Your task to perform on an android device: Show the shopping cart on newegg. Image 0: 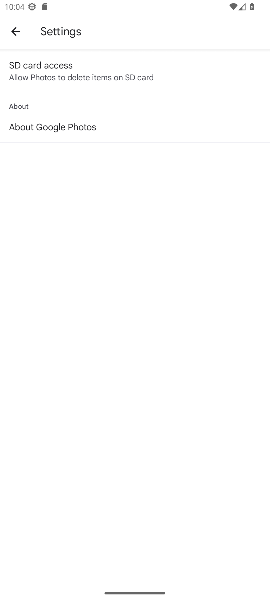
Step 0: press home button
Your task to perform on an android device: Show the shopping cart on newegg. Image 1: 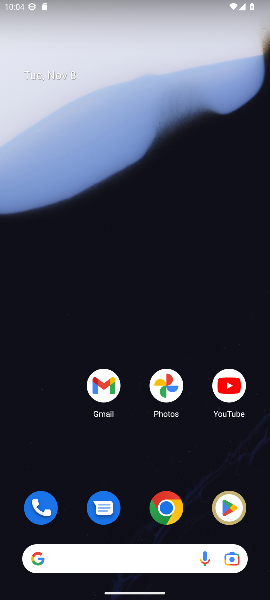
Step 1: click (164, 508)
Your task to perform on an android device: Show the shopping cart on newegg. Image 2: 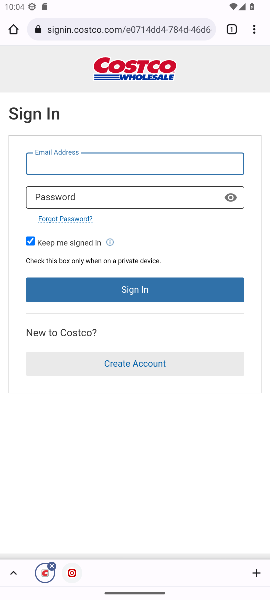
Step 2: click (128, 31)
Your task to perform on an android device: Show the shopping cart on newegg. Image 3: 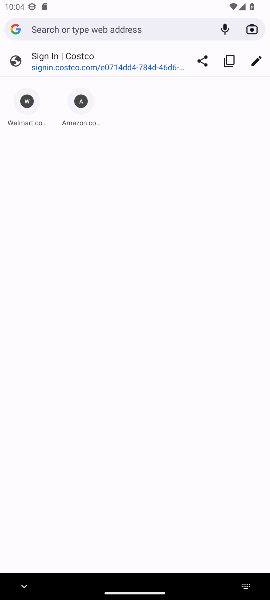
Step 3: type "newegg"
Your task to perform on an android device: Show the shopping cart on newegg. Image 4: 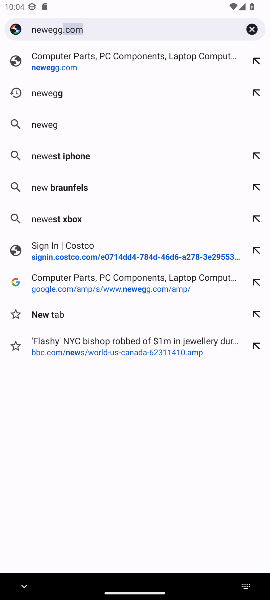
Step 4: type ""
Your task to perform on an android device: Show the shopping cart on newegg. Image 5: 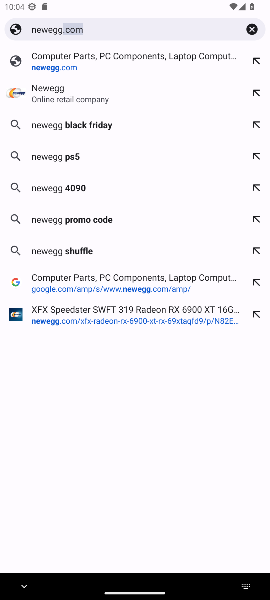
Step 5: click (29, 91)
Your task to perform on an android device: Show the shopping cart on newegg. Image 6: 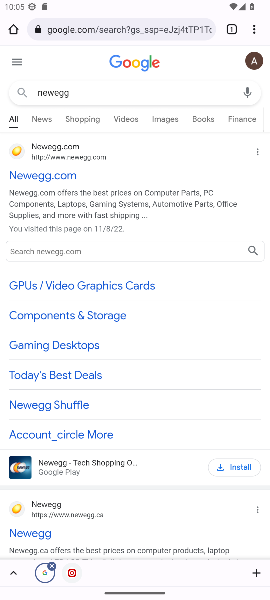
Step 6: click (23, 175)
Your task to perform on an android device: Show the shopping cart on newegg. Image 7: 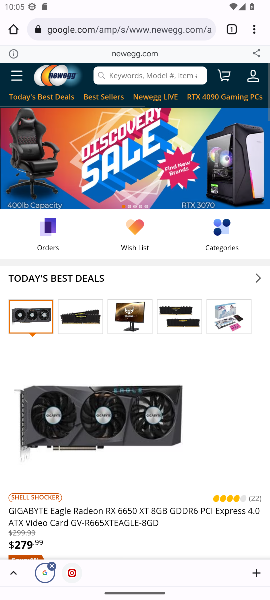
Step 7: click (124, 74)
Your task to perform on an android device: Show the shopping cart on newegg. Image 8: 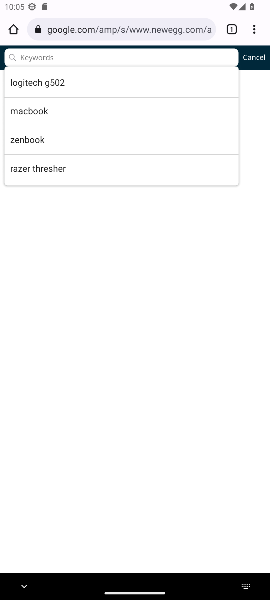
Step 8: click (58, 26)
Your task to perform on an android device: Show the shopping cart on newegg. Image 9: 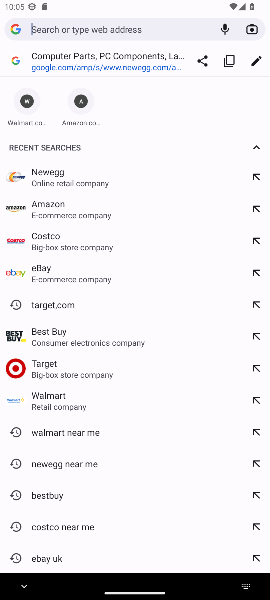
Step 9: type "newegg"
Your task to perform on an android device: Show the shopping cart on newegg. Image 10: 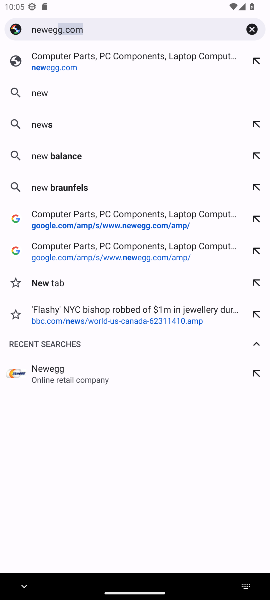
Step 10: type ""
Your task to perform on an android device: Show the shopping cart on newegg. Image 11: 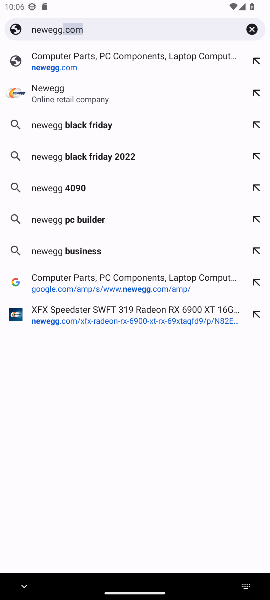
Step 11: click (50, 84)
Your task to perform on an android device: Show the shopping cart on newegg. Image 12: 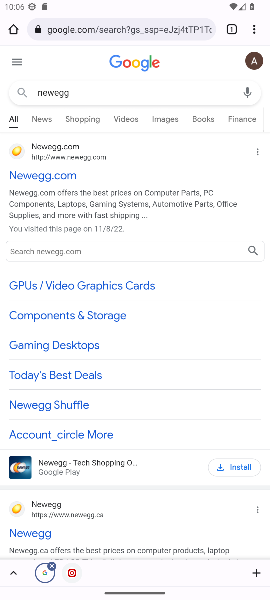
Step 12: click (24, 174)
Your task to perform on an android device: Show the shopping cart on newegg. Image 13: 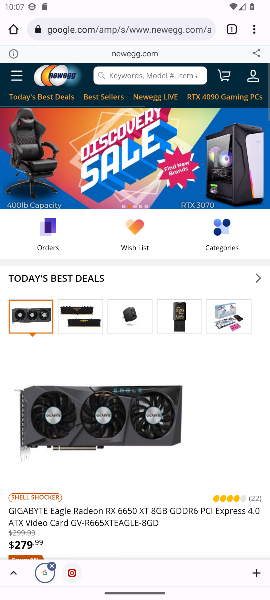
Step 13: click (116, 390)
Your task to perform on an android device: Show the shopping cart on newegg. Image 14: 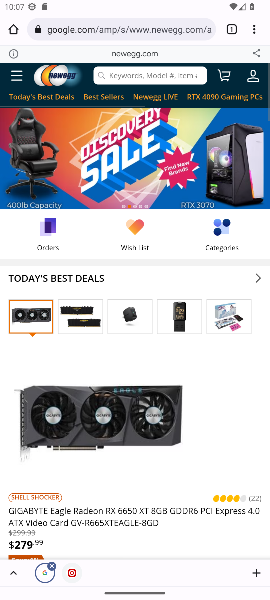
Step 14: drag from (127, 309) to (171, 60)
Your task to perform on an android device: Show the shopping cart on newegg. Image 15: 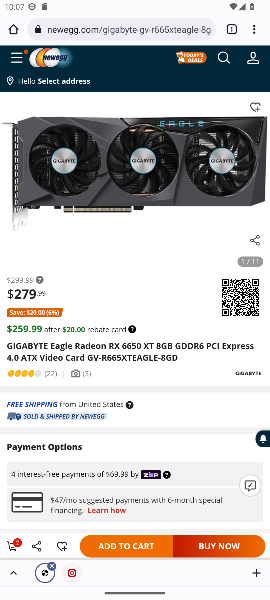
Step 15: click (106, 543)
Your task to perform on an android device: Show the shopping cart on newegg. Image 16: 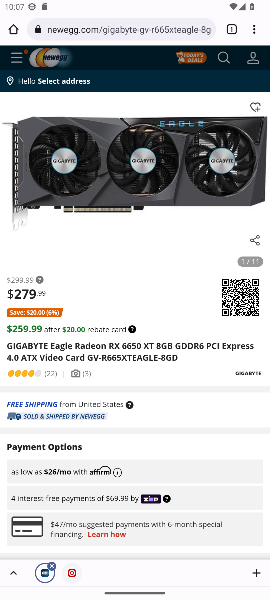
Step 16: task complete